Your task to perform on an android device: Open the Play Movies app and select the watchlist tab. Image 0: 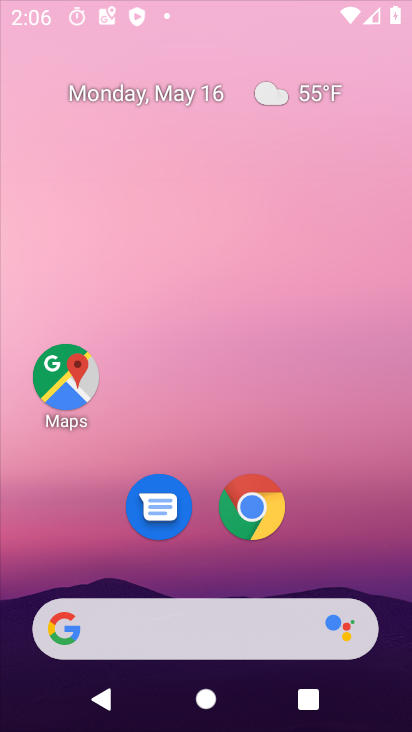
Step 0: click (236, 62)
Your task to perform on an android device: Open the Play Movies app and select the watchlist tab. Image 1: 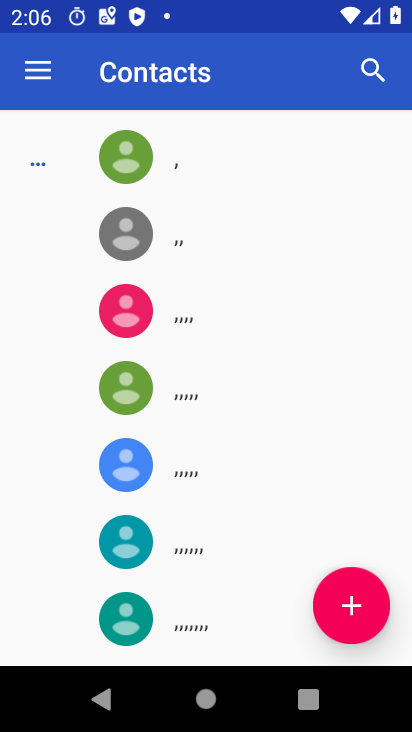
Step 1: press home button
Your task to perform on an android device: Open the Play Movies app and select the watchlist tab. Image 2: 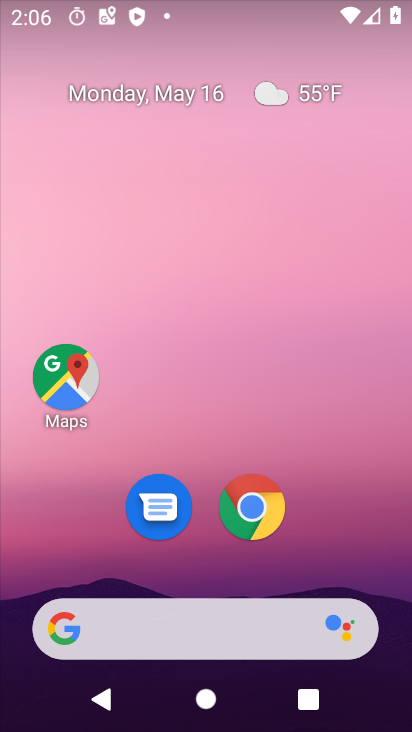
Step 2: drag from (197, 531) to (203, 122)
Your task to perform on an android device: Open the Play Movies app and select the watchlist tab. Image 3: 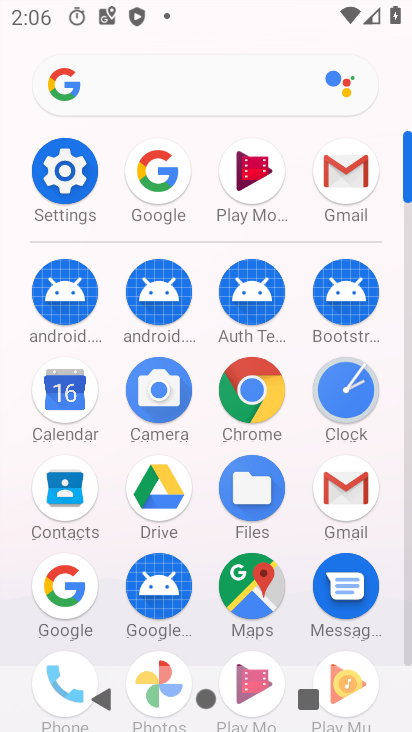
Step 3: drag from (201, 537) to (208, 286)
Your task to perform on an android device: Open the Play Movies app and select the watchlist tab. Image 4: 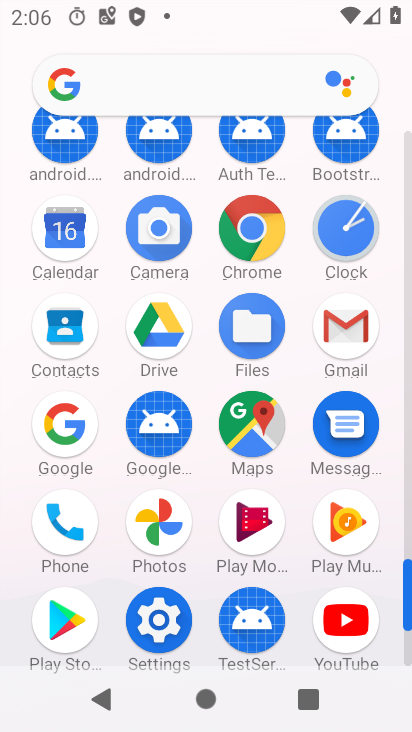
Step 4: click (258, 525)
Your task to perform on an android device: Open the Play Movies app and select the watchlist tab. Image 5: 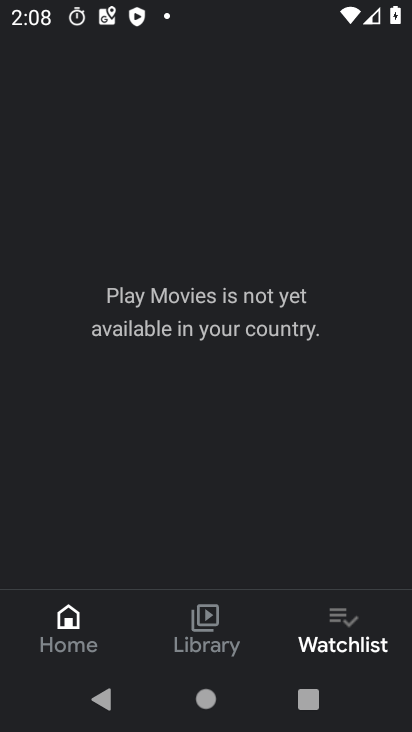
Step 5: task complete